Your task to perform on an android device: turn on notifications settings in the gmail app Image 0: 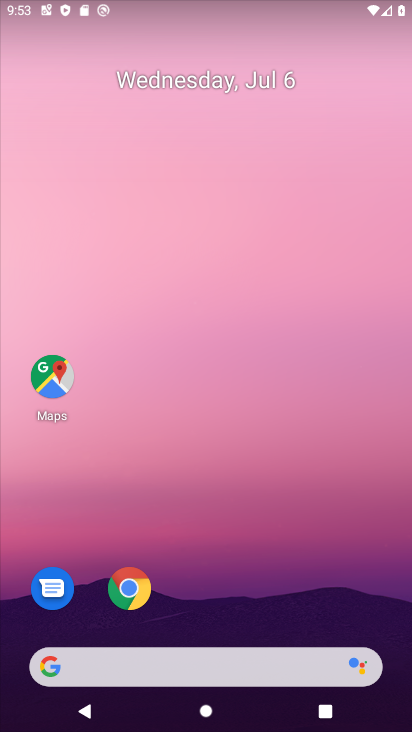
Step 0: drag from (222, 555) to (236, 38)
Your task to perform on an android device: turn on notifications settings in the gmail app Image 1: 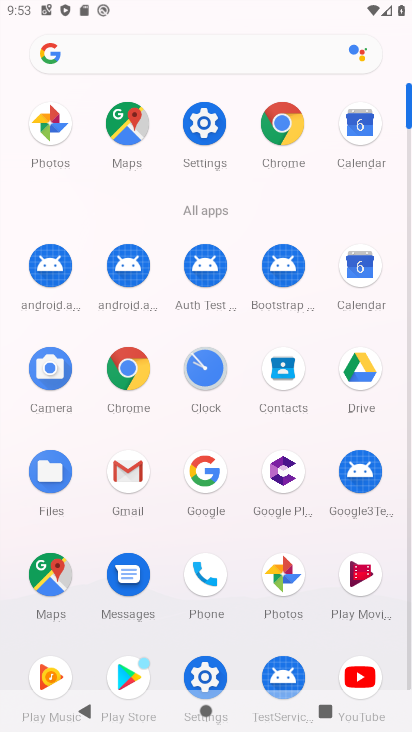
Step 1: click (210, 120)
Your task to perform on an android device: turn on notifications settings in the gmail app Image 2: 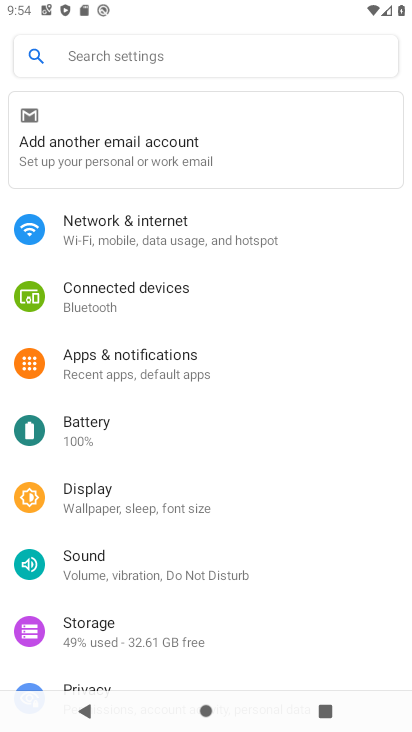
Step 2: press home button
Your task to perform on an android device: turn on notifications settings in the gmail app Image 3: 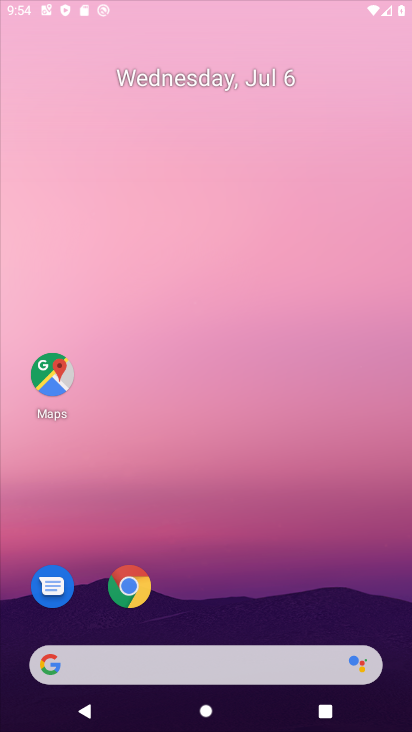
Step 3: press back button
Your task to perform on an android device: turn on notifications settings in the gmail app Image 4: 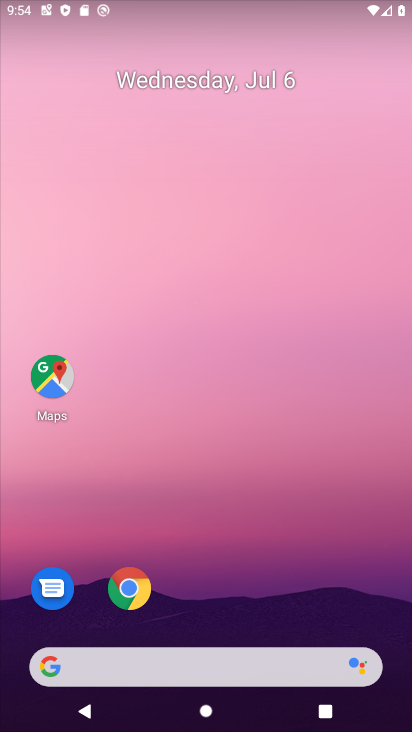
Step 4: drag from (273, 609) to (313, 75)
Your task to perform on an android device: turn on notifications settings in the gmail app Image 5: 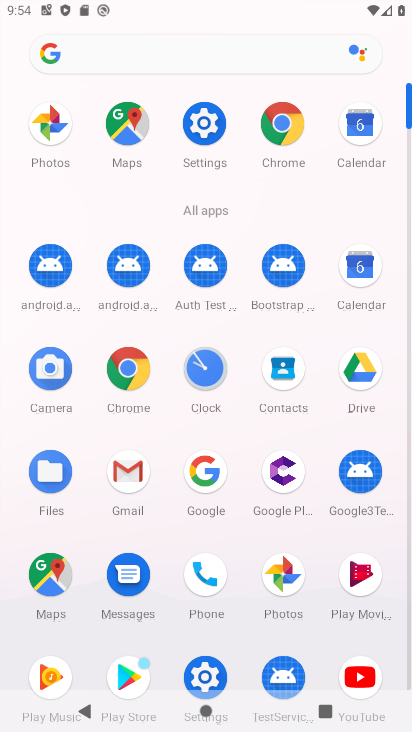
Step 5: click (137, 469)
Your task to perform on an android device: turn on notifications settings in the gmail app Image 6: 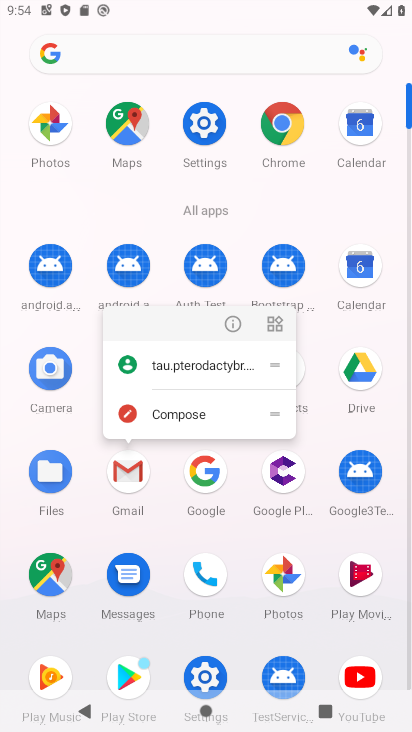
Step 6: click (234, 329)
Your task to perform on an android device: turn on notifications settings in the gmail app Image 7: 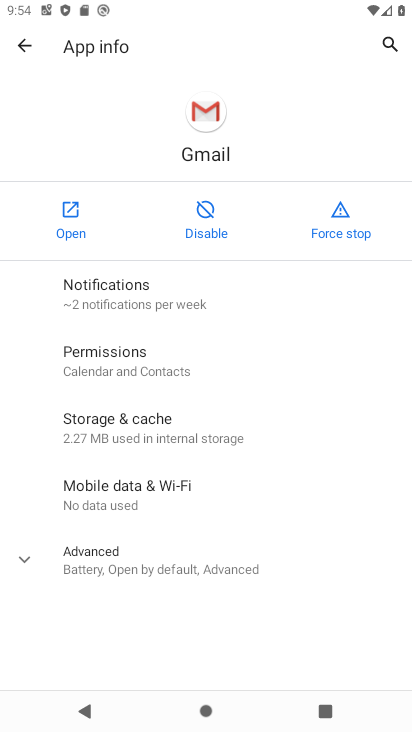
Step 7: click (222, 312)
Your task to perform on an android device: turn on notifications settings in the gmail app Image 8: 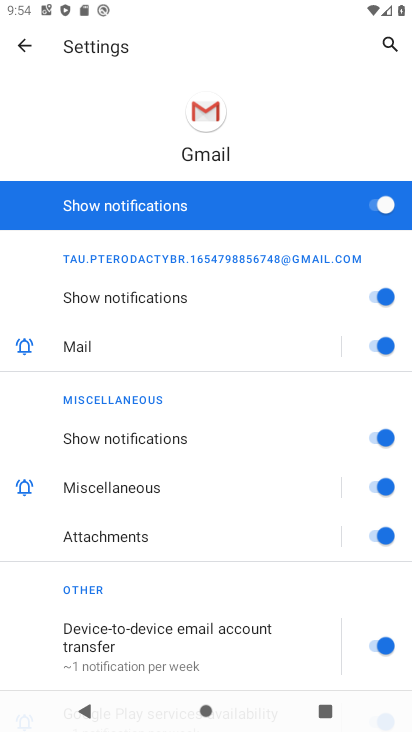
Step 8: task complete